Your task to perform on an android device: Toggle the flashlight Image 0: 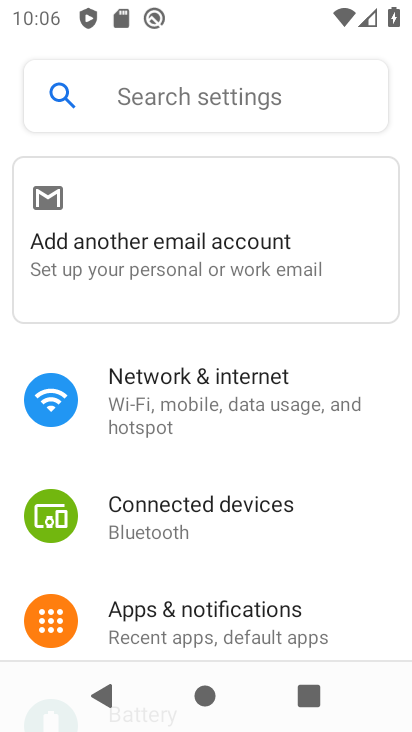
Step 0: press home button
Your task to perform on an android device: Toggle the flashlight Image 1: 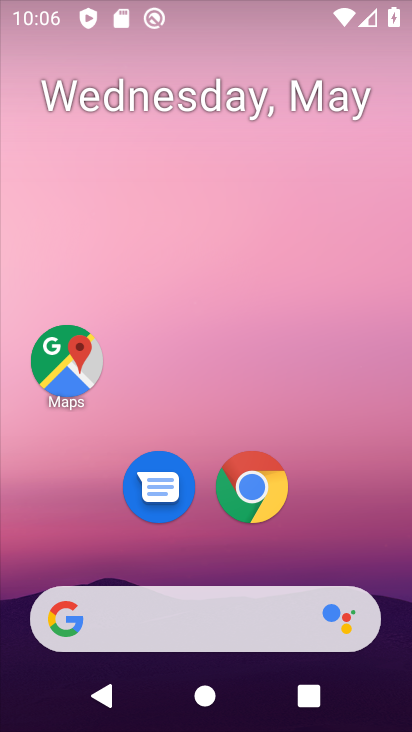
Step 1: drag from (181, 571) to (276, 497)
Your task to perform on an android device: Toggle the flashlight Image 2: 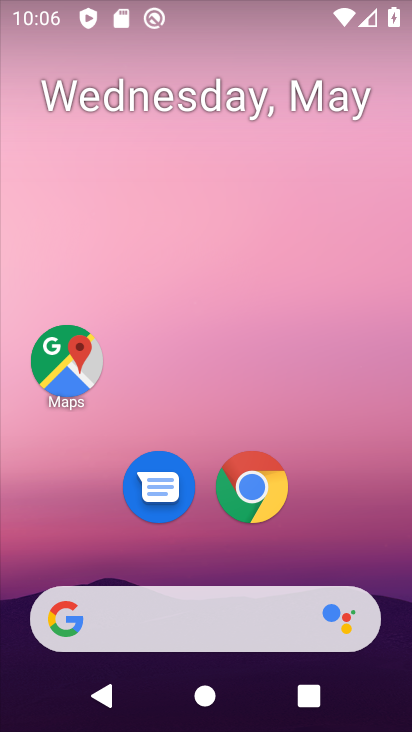
Step 2: drag from (207, 587) to (175, 10)
Your task to perform on an android device: Toggle the flashlight Image 3: 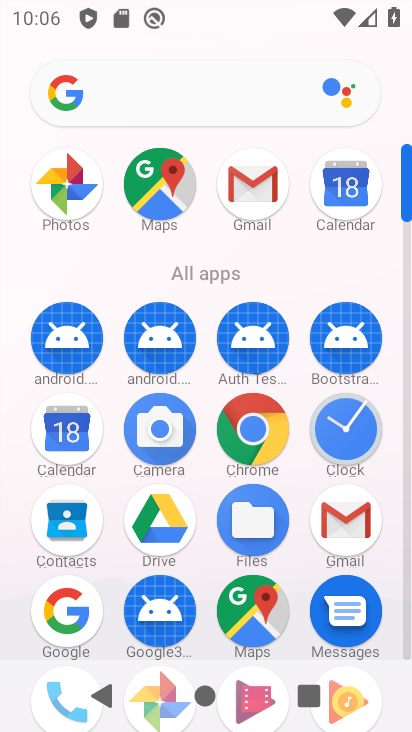
Step 3: drag from (209, 549) to (220, 2)
Your task to perform on an android device: Toggle the flashlight Image 4: 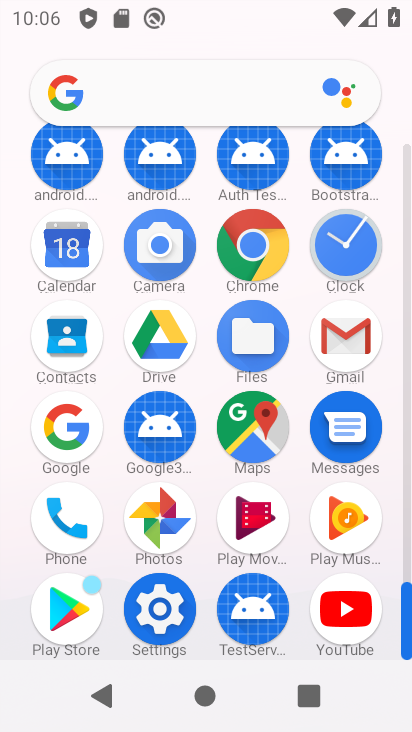
Step 4: click (148, 626)
Your task to perform on an android device: Toggle the flashlight Image 5: 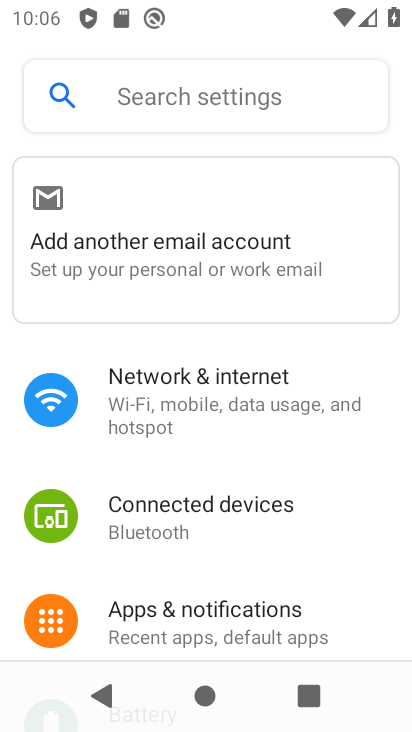
Step 5: task complete